Your task to perform on an android device: Do I have any events this weekend? Image 0: 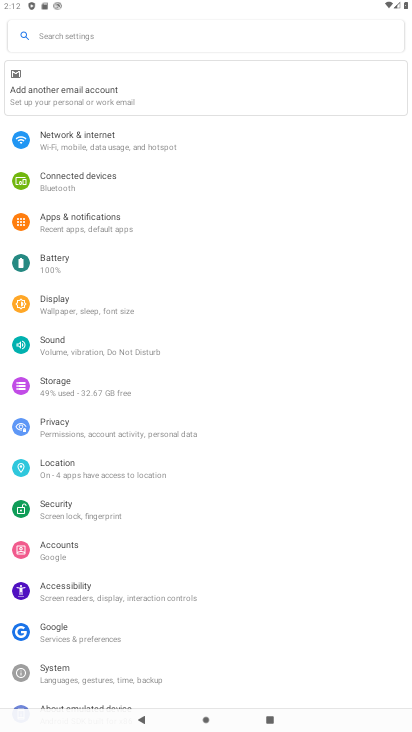
Step 0: press home button
Your task to perform on an android device: Do I have any events this weekend? Image 1: 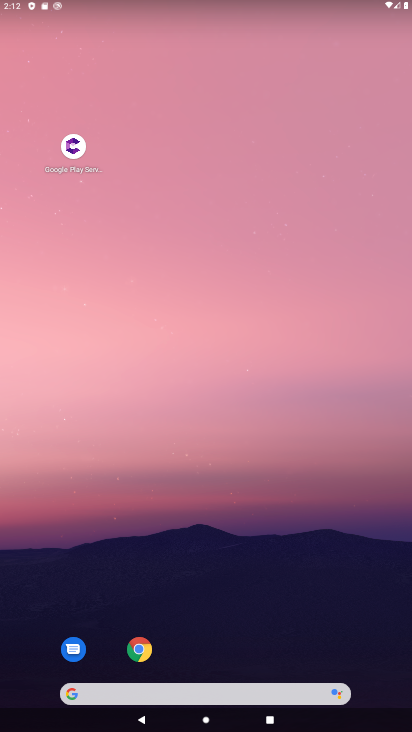
Step 1: drag from (238, 565) to (176, 195)
Your task to perform on an android device: Do I have any events this weekend? Image 2: 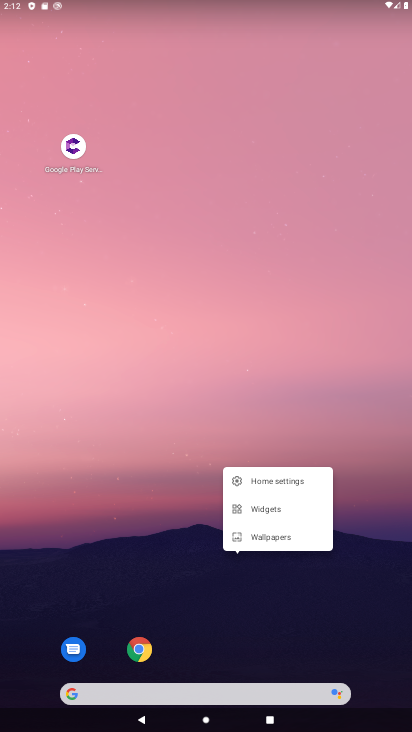
Step 2: click (234, 405)
Your task to perform on an android device: Do I have any events this weekend? Image 3: 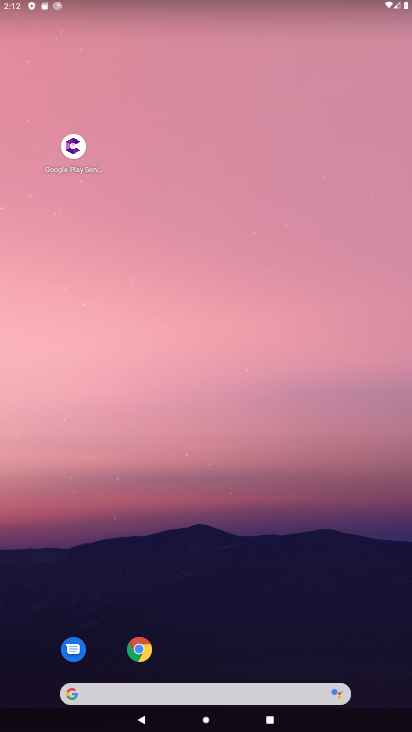
Step 3: drag from (281, 558) to (237, 72)
Your task to perform on an android device: Do I have any events this weekend? Image 4: 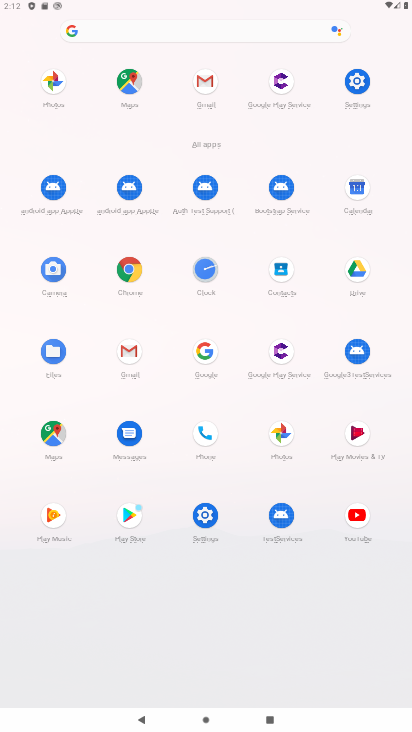
Step 4: click (352, 187)
Your task to perform on an android device: Do I have any events this weekend? Image 5: 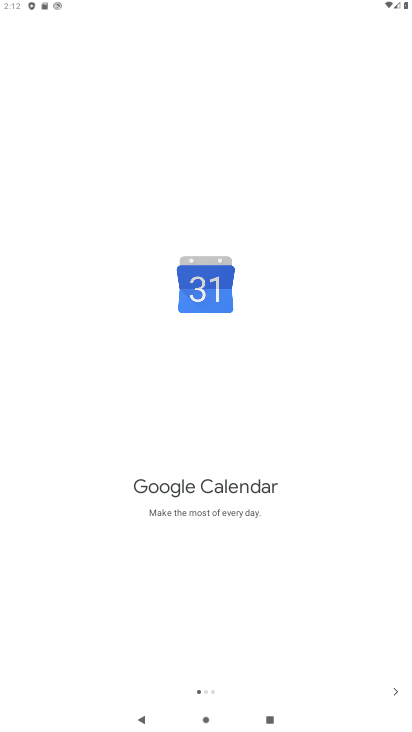
Step 5: click (393, 691)
Your task to perform on an android device: Do I have any events this weekend? Image 6: 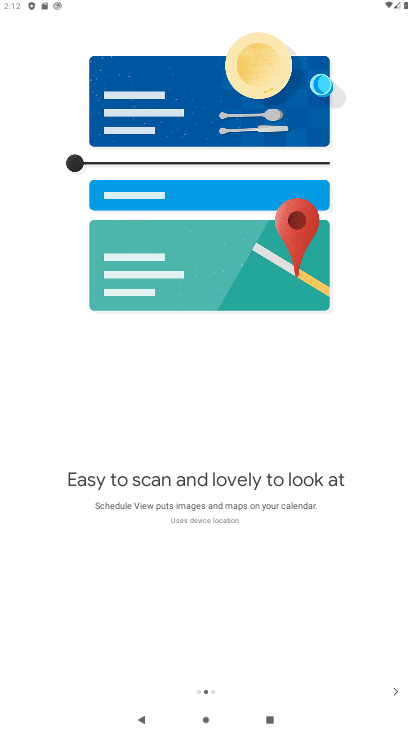
Step 6: click (393, 691)
Your task to perform on an android device: Do I have any events this weekend? Image 7: 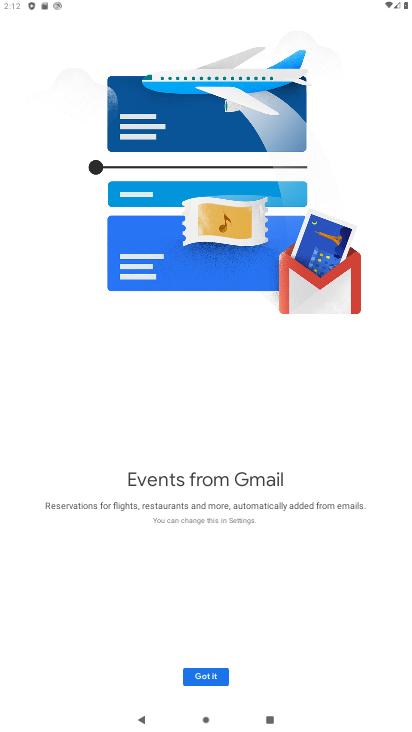
Step 7: click (191, 677)
Your task to perform on an android device: Do I have any events this weekend? Image 8: 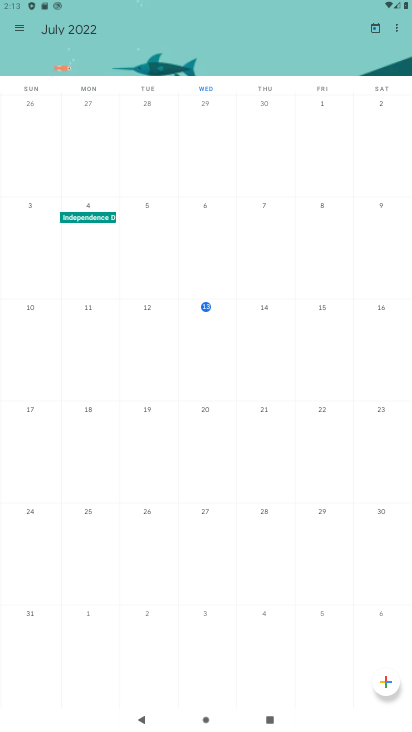
Step 8: click (15, 26)
Your task to perform on an android device: Do I have any events this weekend? Image 9: 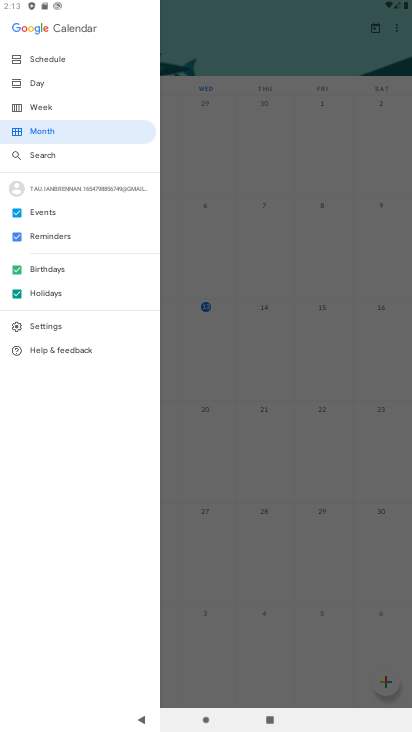
Step 9: click (45, 104)
Your task to perform on an android device: Do I have any events this weekend? Image 10: 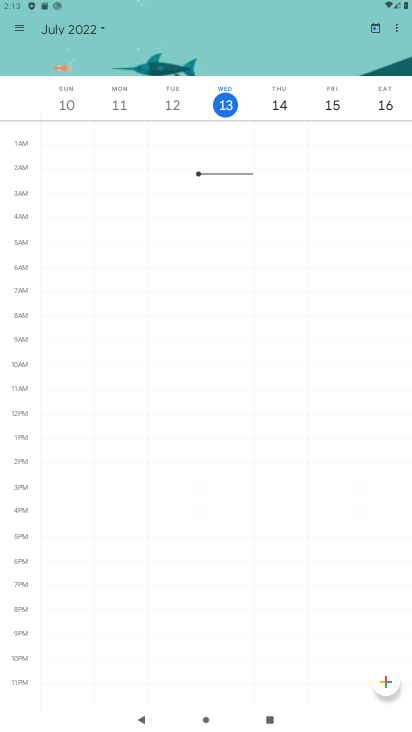
Step 10: task complete